Your task to perform on an android device: refresh tabs in the chrome app Image 0: 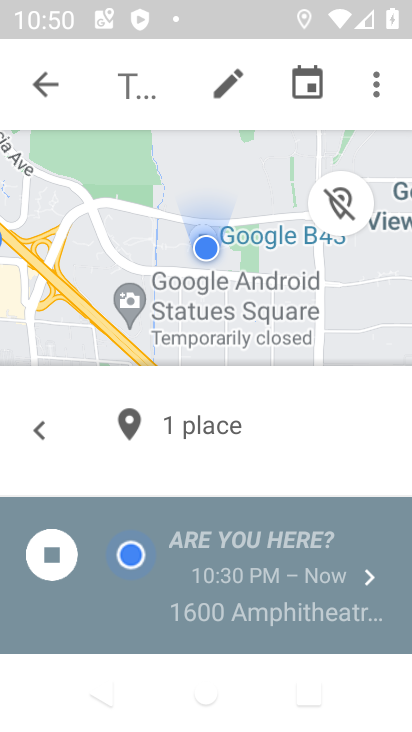
Step 0: press home button
Your task to perform on an android device: refresh tabs in the chrome app Image 1: 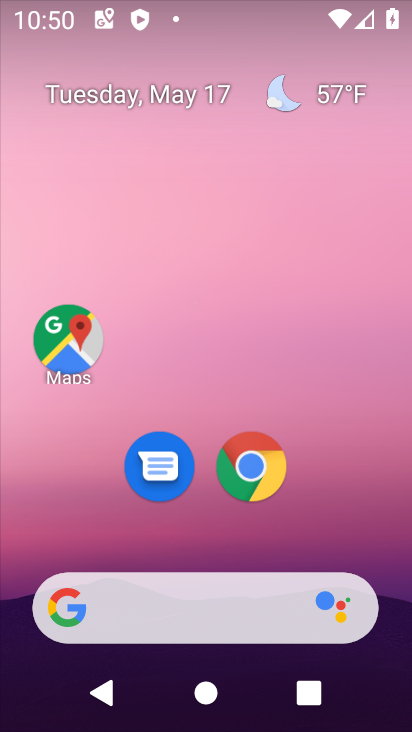
Step 1: drag from (248, 656) to (244, 182)
Your task to perform on an android device: refresh tabs in the chrome app Image 2: 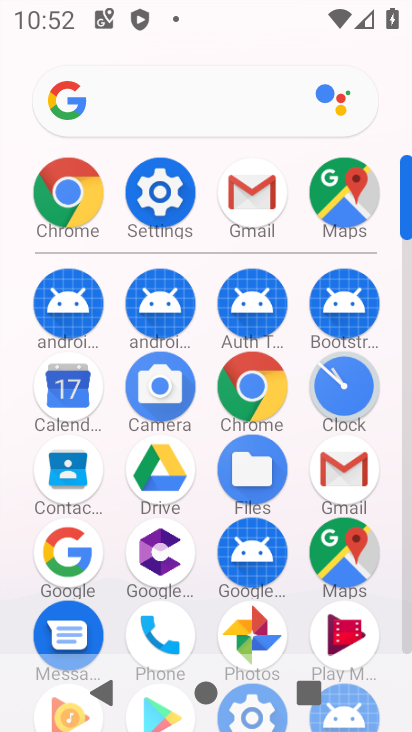
Step 2: click (74, 213)
Your task to perform on an android device: refresh tabs in the chrome app Image 3: 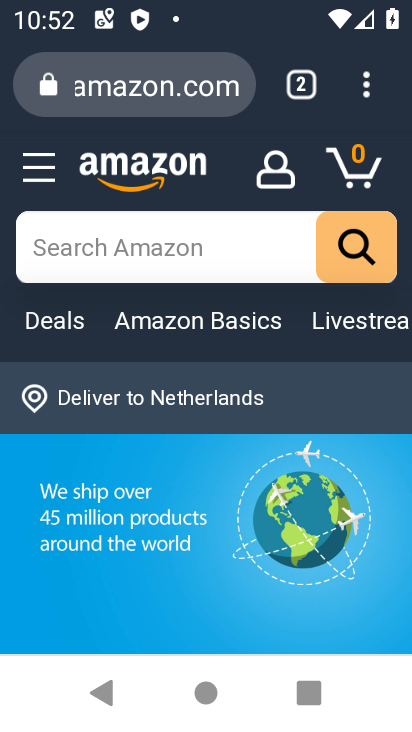
Step 3: click (371, 100)
Your task to perform on an android device: refresh tabs in the chrome app Image 4: 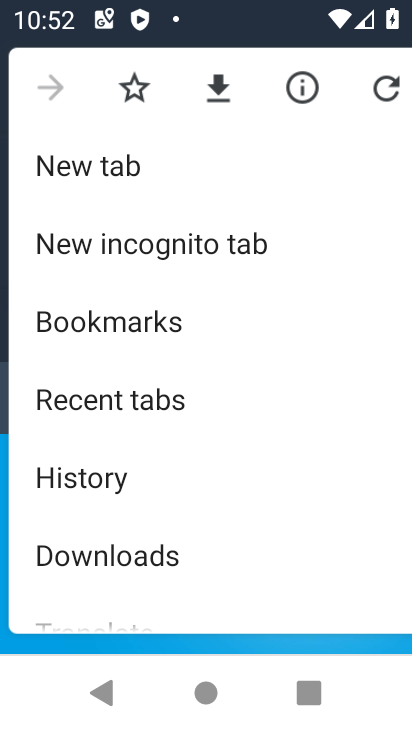
Step 4: drag from (132, 482) to (220, 206)
Your task to perform on an android device: refresh tabs in the chrome app Image 5: 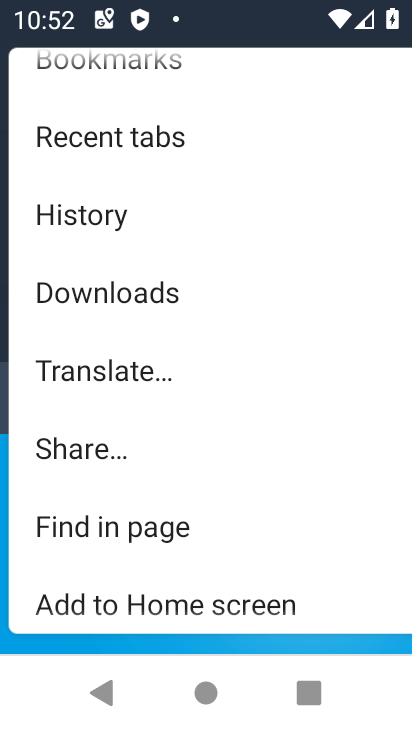
Step 5: drag from (176, 514) to (220, 311)
Your task to perform on an android device: refresh tabs in the chrome app Image 6: 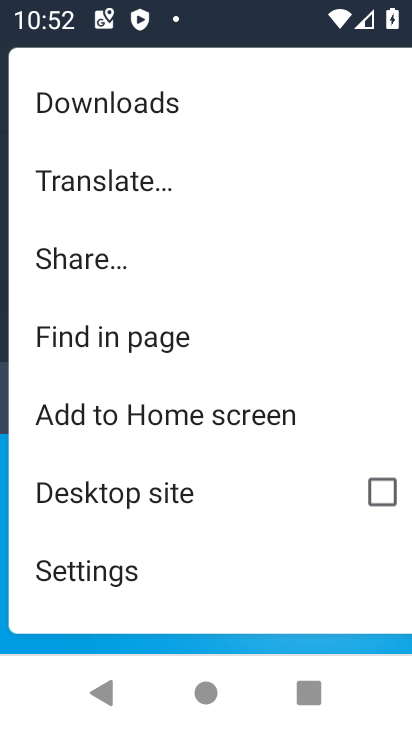
Step 6: click (141, 568)
Your task to perform on an android device: refresh tabs in the chrome app Image 7: 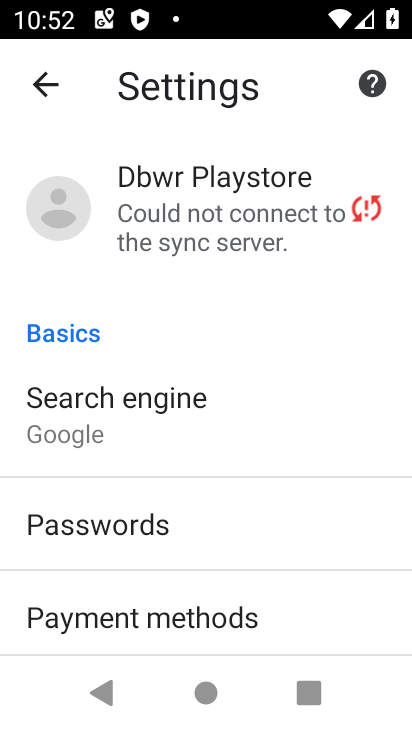
Step 7: drag from (153, 546) to (190, 328)
Your task to perform on an android device: refresh tabs in the chrome app Image 8: 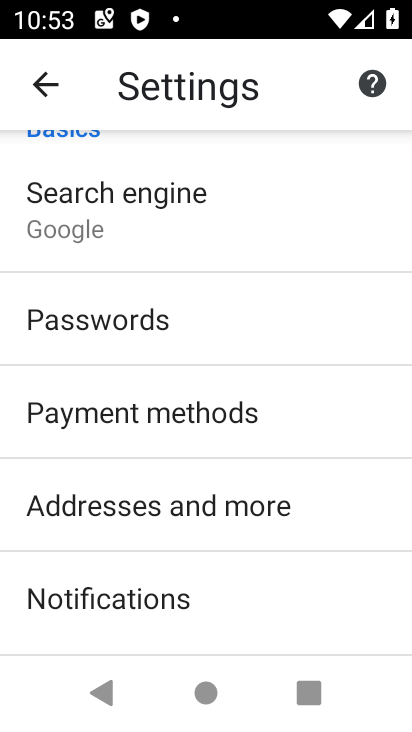
Step 8: click (30, 88)
Your task to perform on an android device: refresh tabs in the chrome app Image 9: 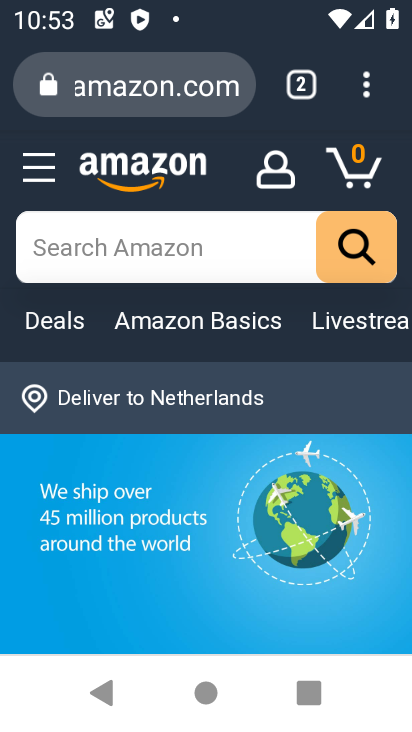
Step 9: click (366, 91)
Your task to perform on an android device: refresh tabs in the chrome app Image 10: 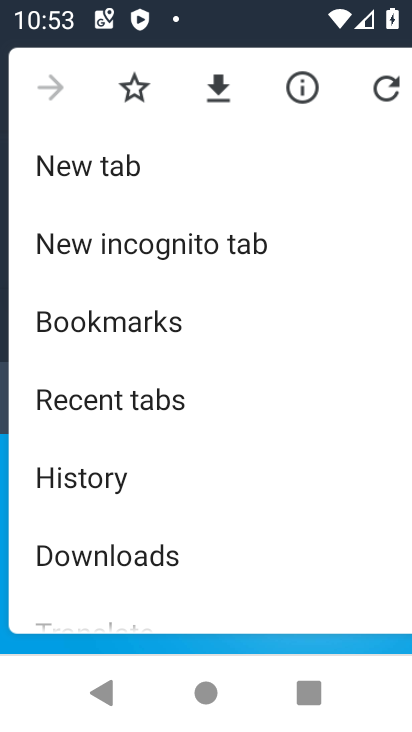
Step 10: click (368, 93)
Your task to perform on an android device: refresh tabs in the chrome app Image 11: 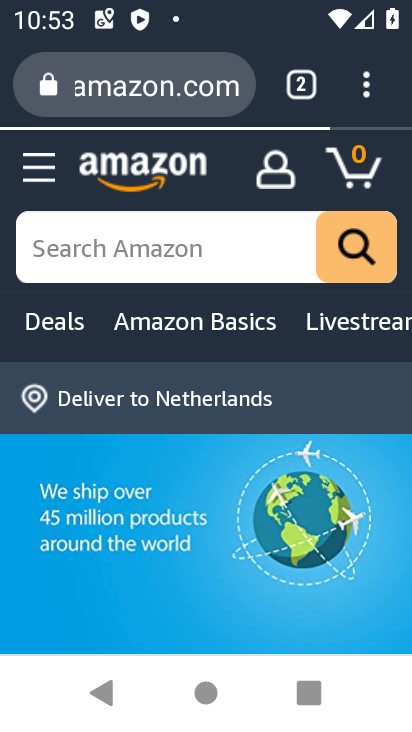
Step 11: task complete